Your task to perform on an android device: turn on airplane mode Image 0: 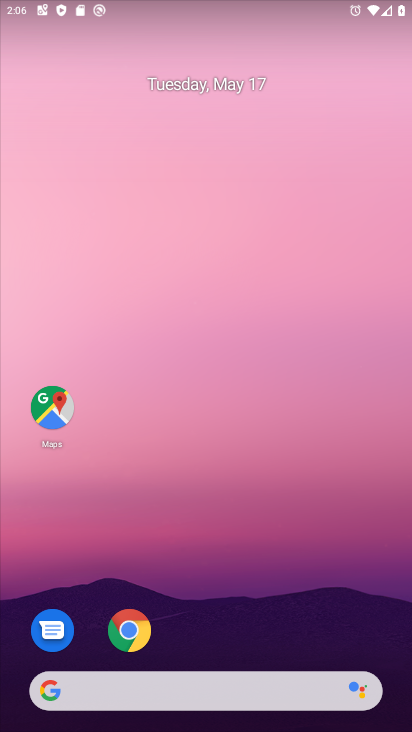
Step 0: drag from (307, 609) to (278, 176)
Your task to perform on an android device: turn on airplane mode Image 1: 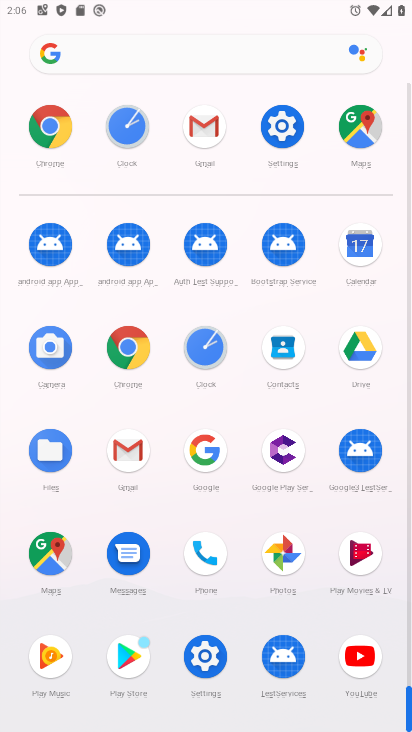
Step 1: click (281, 144)
Your task to perform on an android device: turn on airplane mode Image 2: 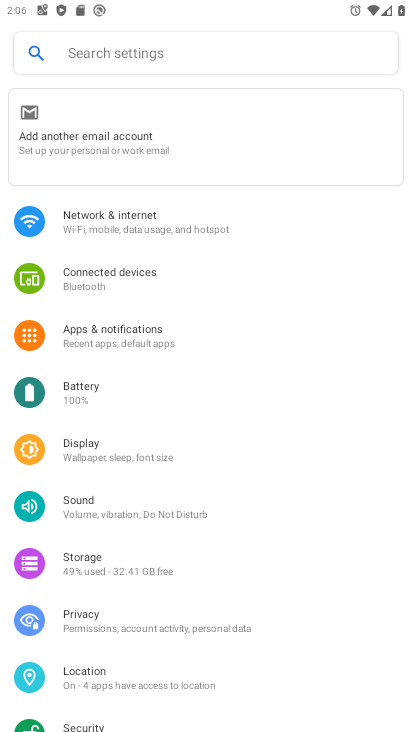
Step 2: drag from (291, 675) to (263, 341)
Your task to perform on an android device: turn on airplane mode Image 3: 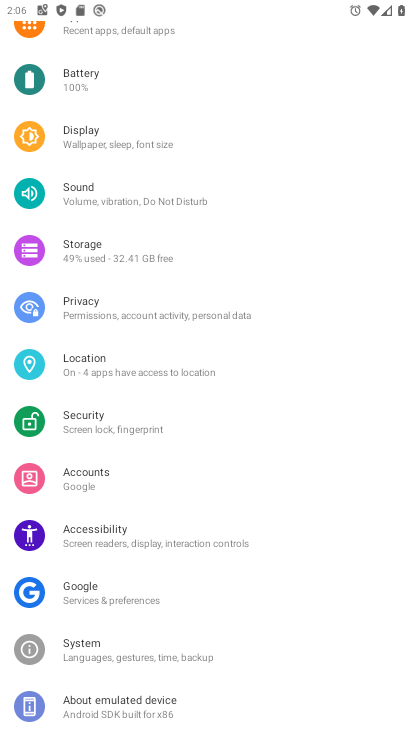
Step 3: drag from (295, 629) to (278, 294)
Your task to perform on an android device: turn on airplane mode Image 4: 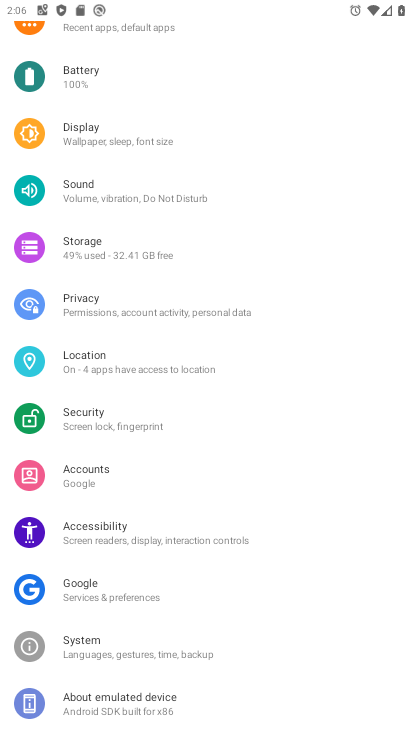
Step 4: drag from (235, 143) to (267, 433)
Your task to perform on an android device: turn on airplane mode Image 5: 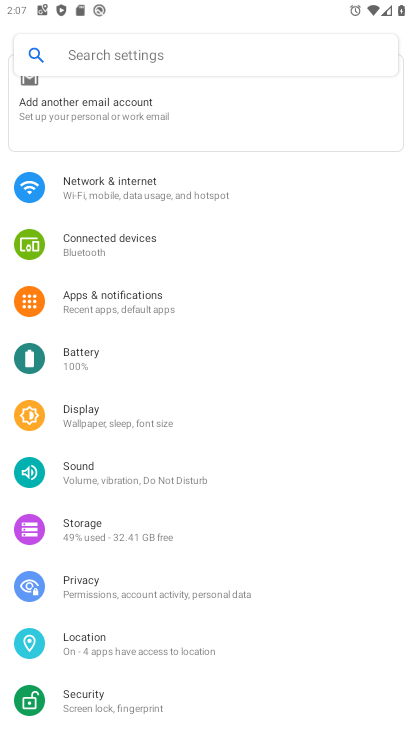
Step 5: drag from (291, 552) to (268, 202)
Your task to perform on an android device: turn on airplane mode Image 6: 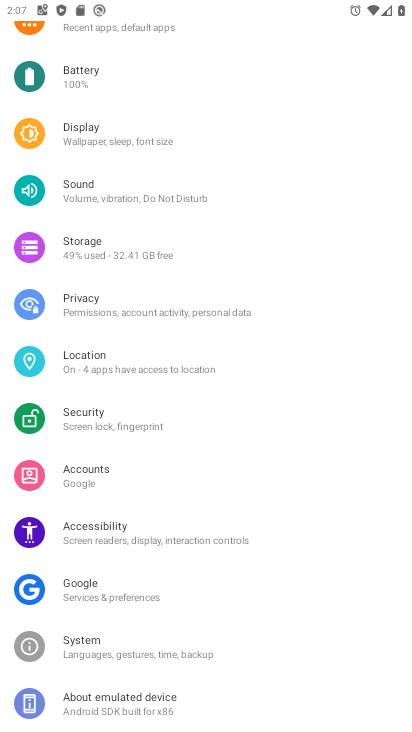
Step 6: drag from (163, 80) to (241, 412)
Your task to perform on an android device: turn on airplane mode Image 7: 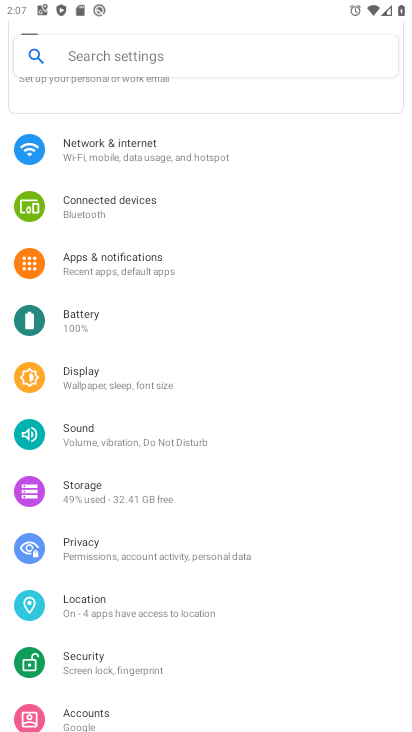
Step 7: click (100, 147)
Your task to perform on an android device: turn on airplane mode Image 8: 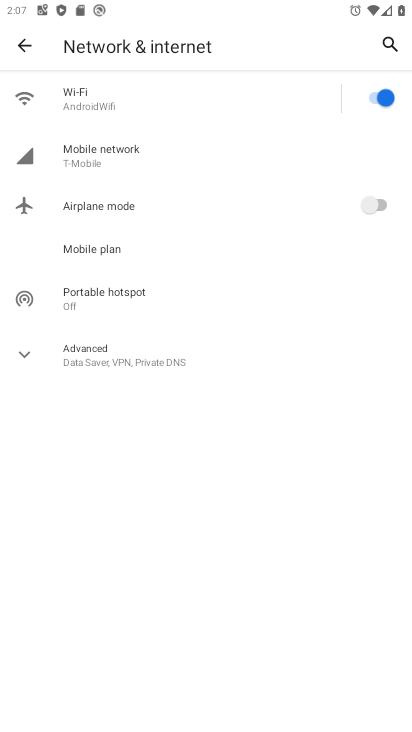
Step 8: click (381, 211)
Your task to perform on an android device: turn on airplane mode Image 9: 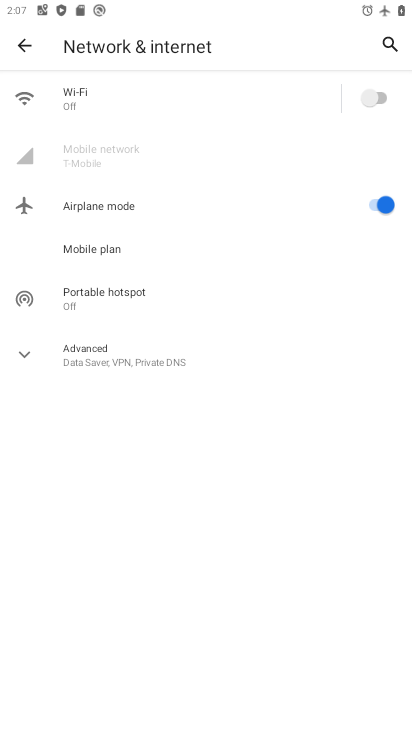
Step 9: task complete